Your task to perform on an android device: show emergency info Image 0: 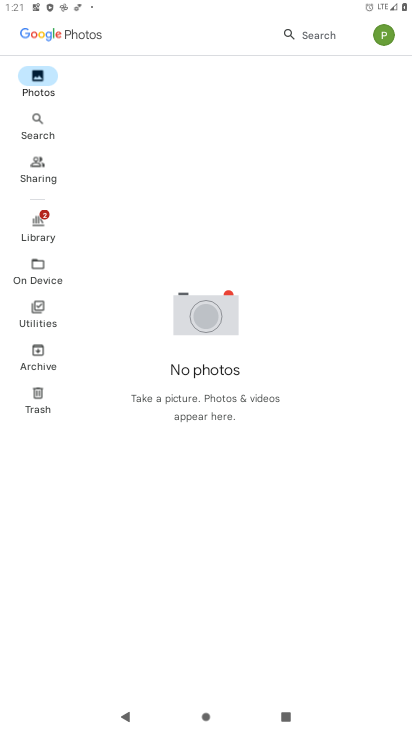
Step 0: press home button
Your task to perform on an android device: show emergency info Image 1: 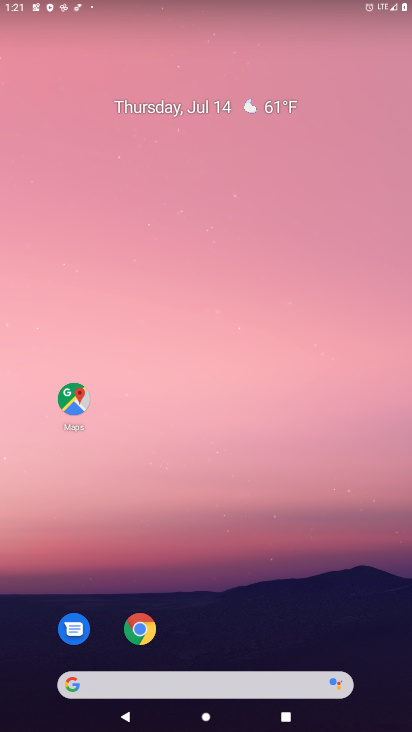
Step 1: drag from (241, 574) to (193, 180)
Your task to perform on an android device: show emergency info Image 2: 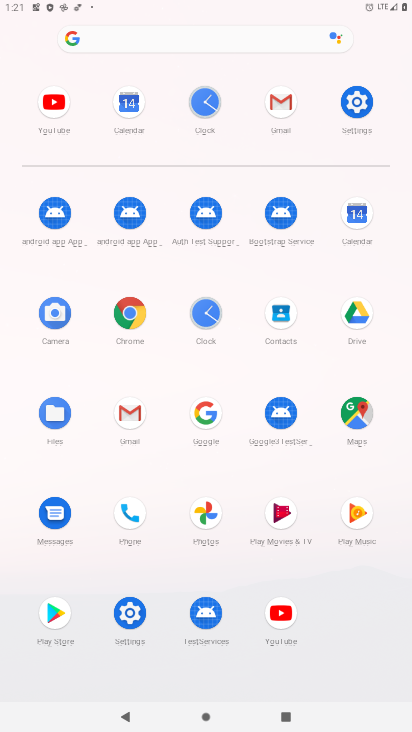
Step 2: click (124, 620)
Your task to perform on an android device: show emergency info Image 3: 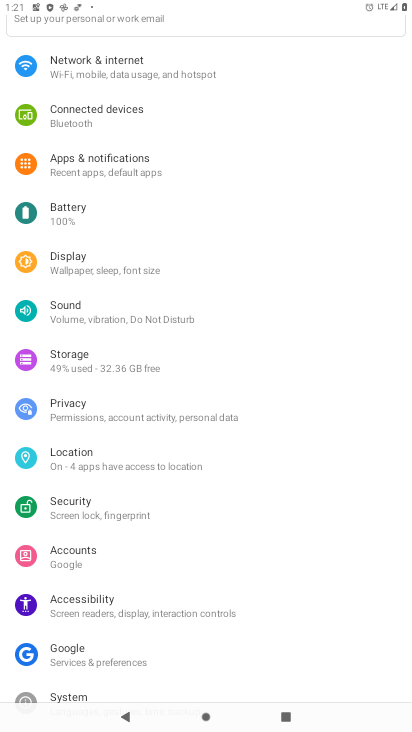
Step 3: drag from (226, 632) to (226, 185)
Your task to perform on an android device: show emergency info Image 4: 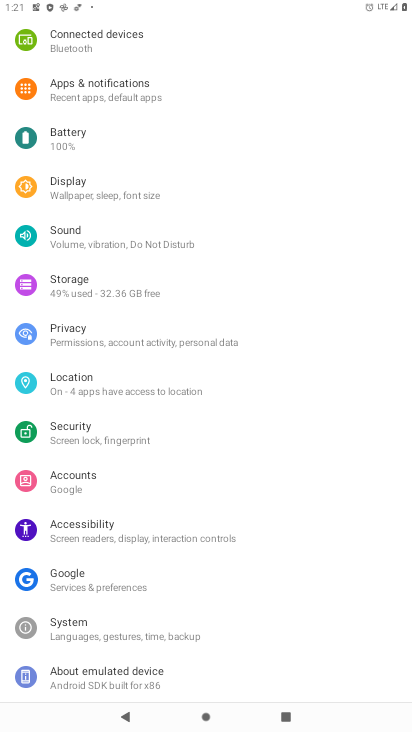
Step 4: click (98, 677)
Your task to perform on an android device: show emergency info Image 5: 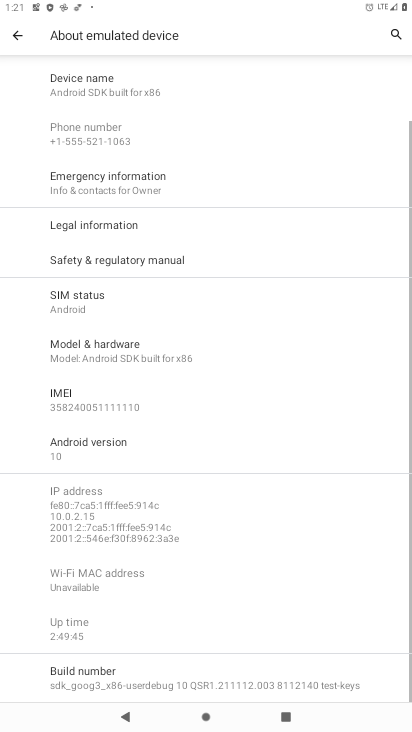
Step 5: click (126, 178)
Your task to perform on an android device: show emergency info Image 6: 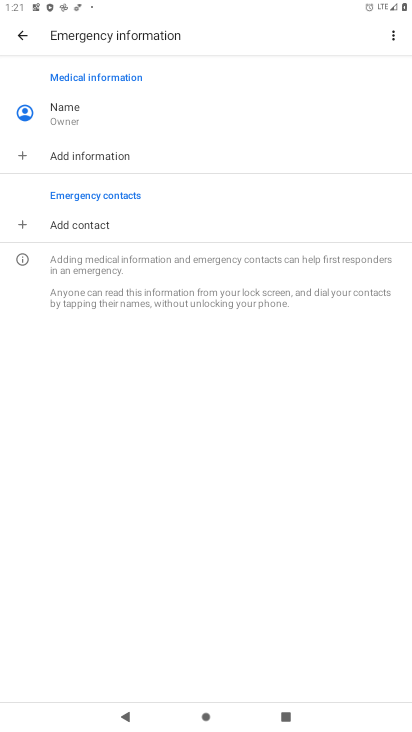
Step 6: task complete